Your task to perform on an android device: Go to Wikipedia Image 0: 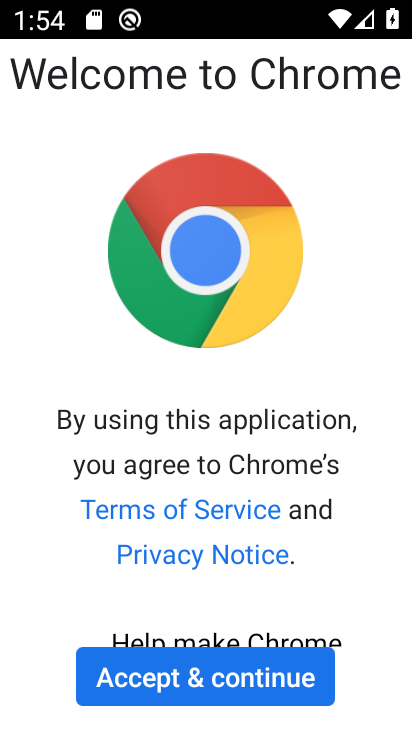
Step 0: click (294, 691)
Your task to perform on an android device: Go to Wikipedia Image 1: 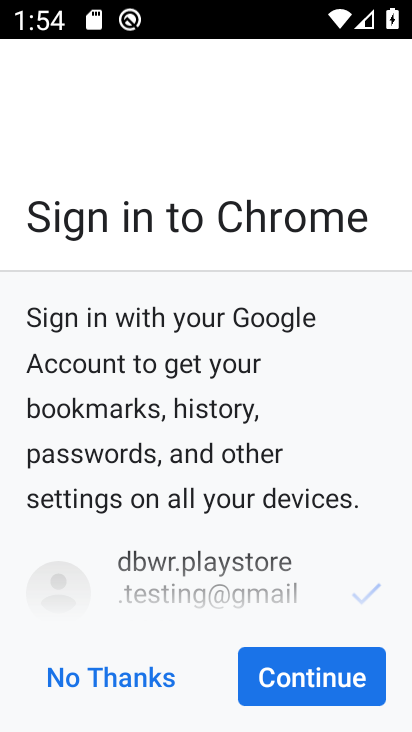
Step 1: click (295, 691)
Your task to perform on an android device: Go to Wikipedia Image 2: 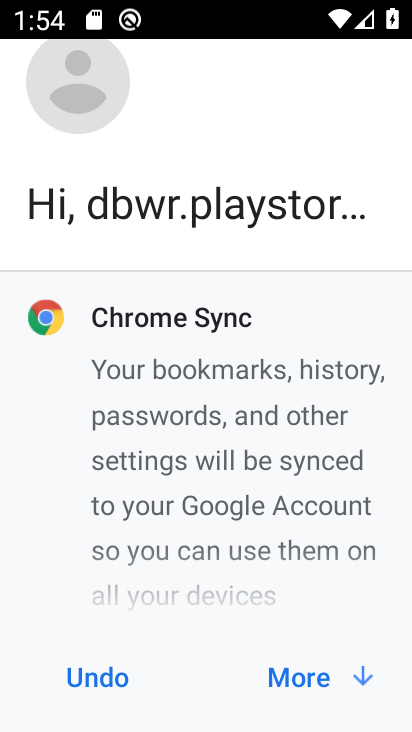
Step 2: click (295, 691)
Your task to perform on an android device: Go to Wikipedia Image 3: 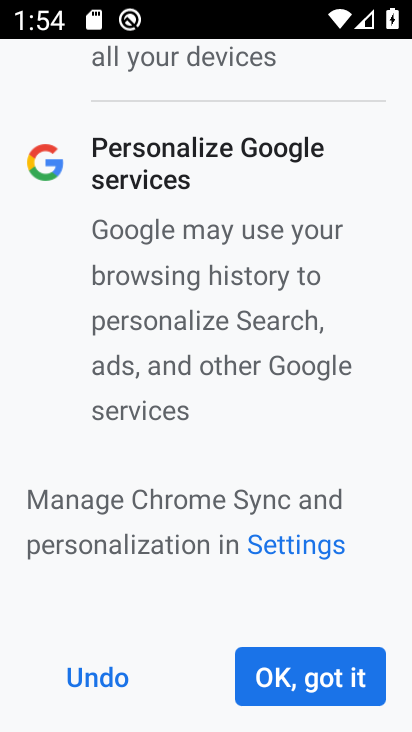
Step 3: click (295, 691)
Your task to perform on an android device: Go to Wikipedia Image 4: 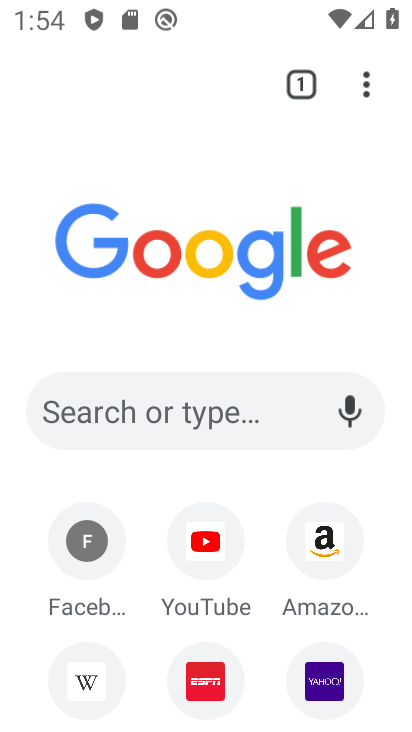
Step 4: click (108, 666)
Your task to perform on an android device: Go to Wikipedia Image 5: 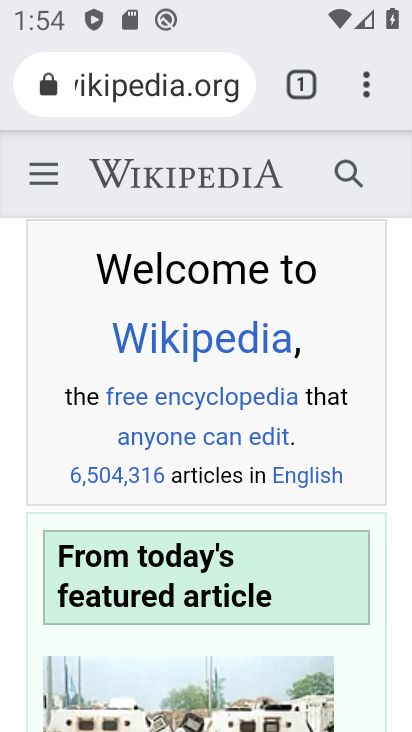
Step 5: task complete